Your task to perform on an android device: toggle show notifications on the lock screen Image 0: 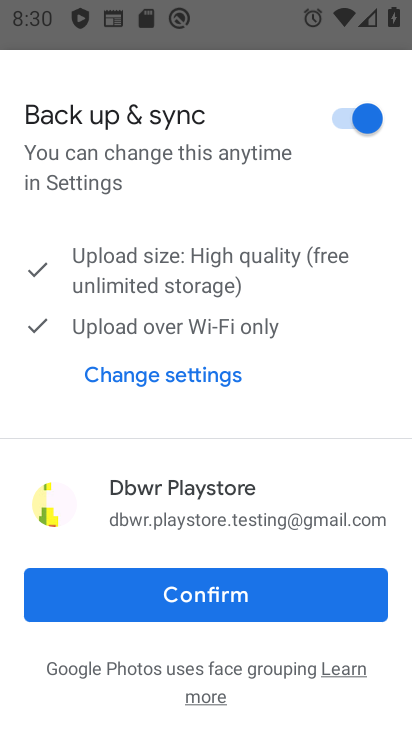
Step 0: press home button
Your task to perform on an android device: toggle show notifications on the lock screen Image 1: 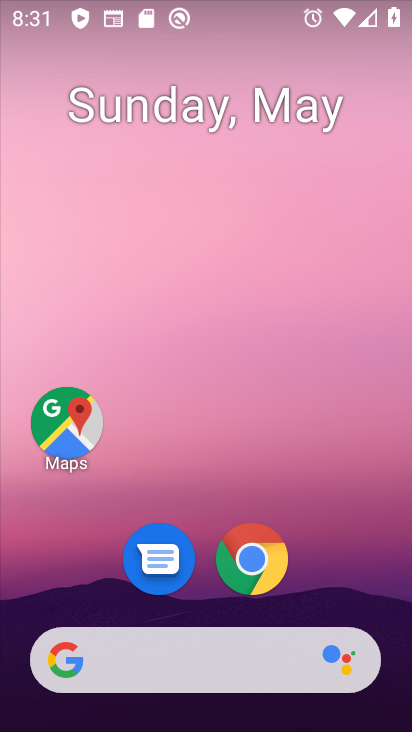
Step 1: drag from (41, 549) to (116, 281)
Your task to perform on an android device: toggle show notifications on the lock screen Image 2: 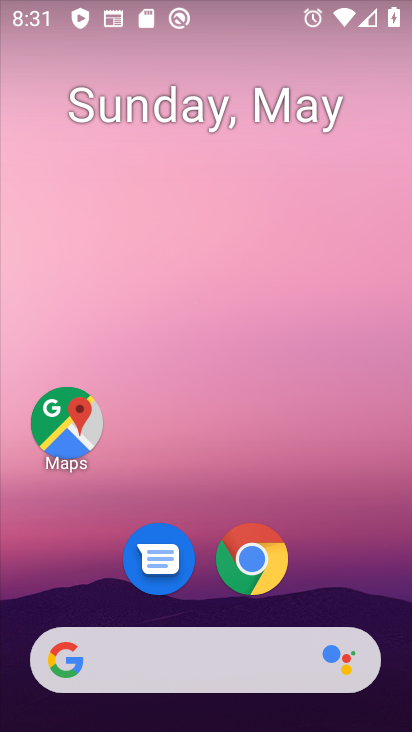
Step 2: drag from (10, 603) to (231, 98)
Your task to perform on an android device: toggle show notifications on the lock screen Image 3: 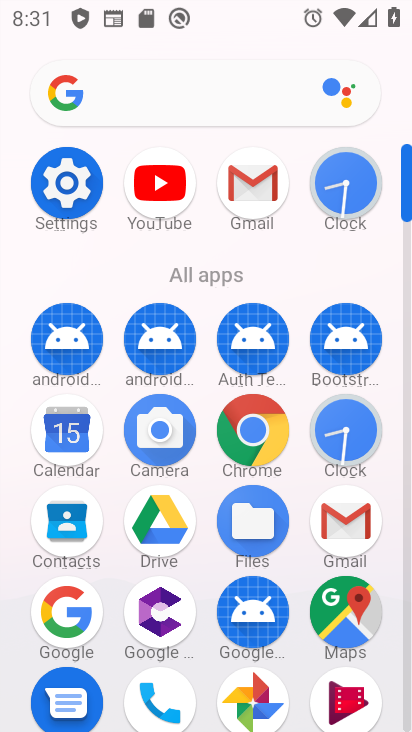
Step 3: click (61, 188)
Your task to perform on an android device: toggle show notifications on the lock screen Image 4: 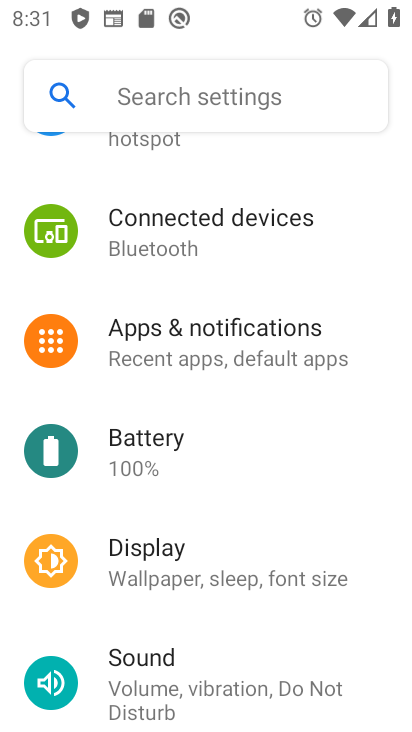
Step 4: click (148, 345)
Your task to perform on an android device: toggle show notifications on the lock screen Image 5: 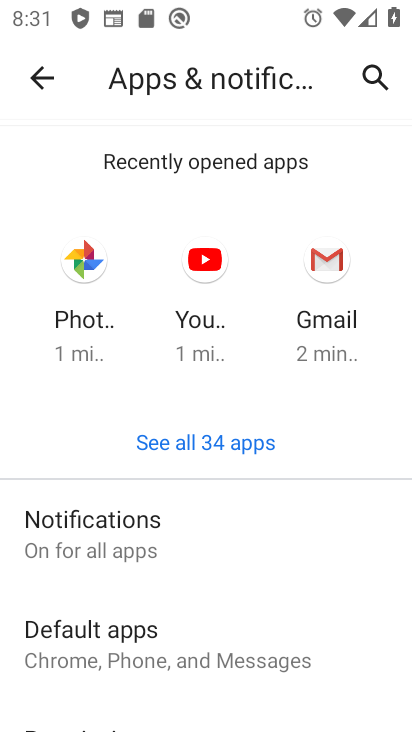
Step 5: drag from (114, 645) to (111, 243)
Your task to perform on an android device: toggle show notifications on the lock screen Image 6: 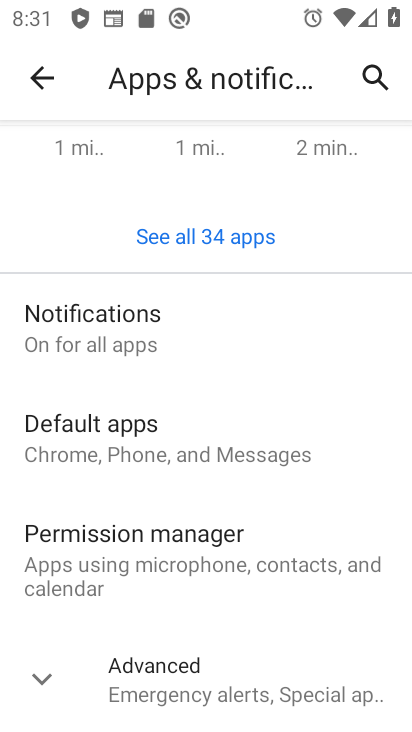
Step 6: click (104, 338)
Your task to perform on an android device: toggle show notifications on the lock screen Image 7: 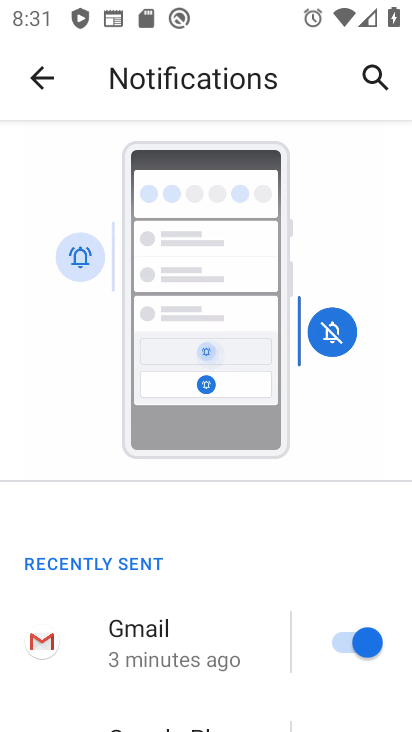
Step 7: drag from (44, 429) to (109, 193)
Your task to perform on an android device: toggle show notifications on the lock screen Image 8: 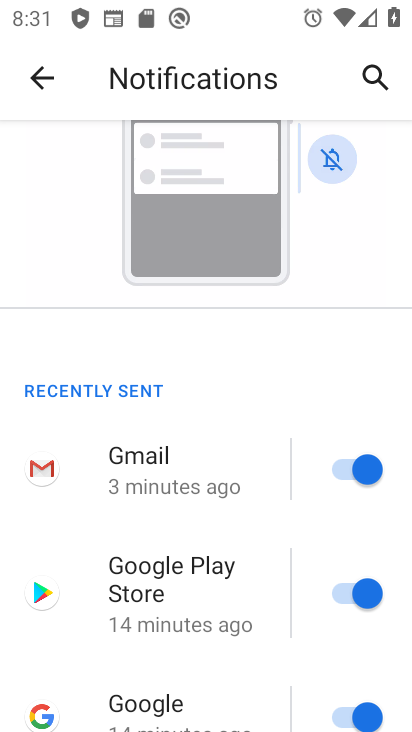
Step 8: drag from (5, 597) to (118, 264)
Your task to perform on an android device: toggle show notifications on the lock screen Image 9: 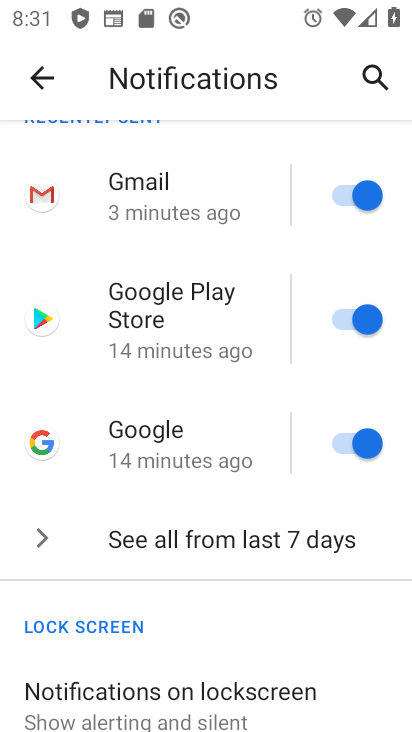
Step 9: click (99, 697)
Your task to perform on an android device: toggle show notifications on the lock screen Image 10: 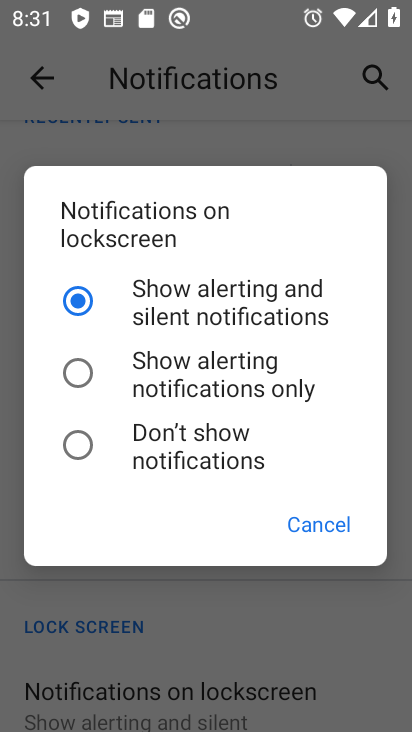
Step 10: click (73, 445)
Your task to perform on an android device: toggle show notifications on the lock screen Image 11: 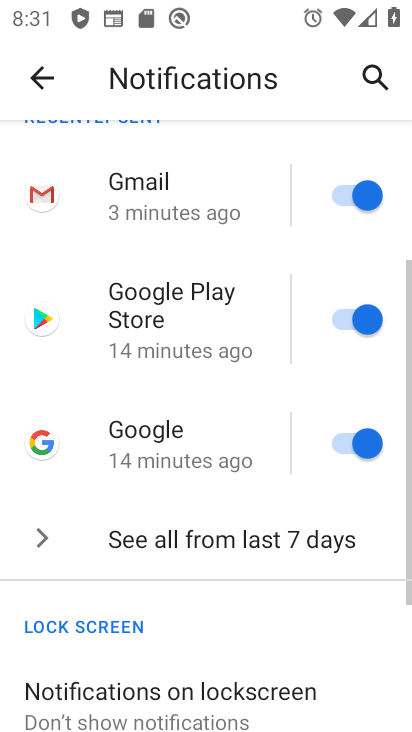
Step 11: task complete